Your task to perform on an android device: What's the weather? Image 0: 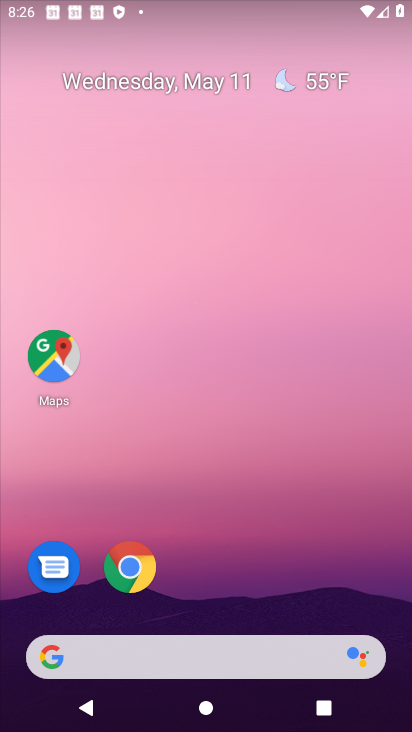
Step 0: drag from (323, 619) to (308, 53)
Your task to perform on an android device: What's the weather? Image 1: 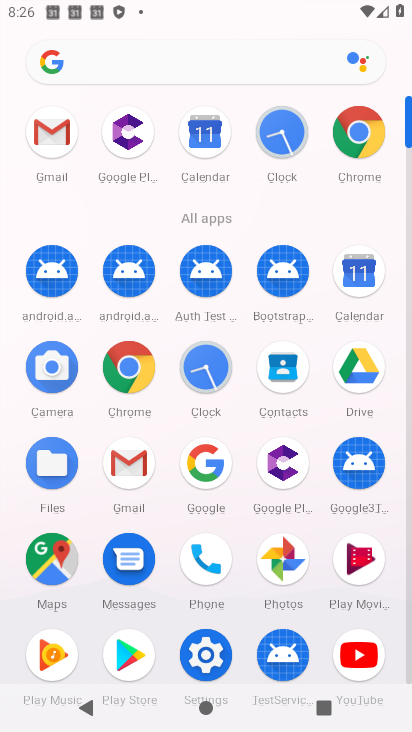
Step 1: click (122, 386)
Your task to perform on an android device: What's the weather? Image 2: 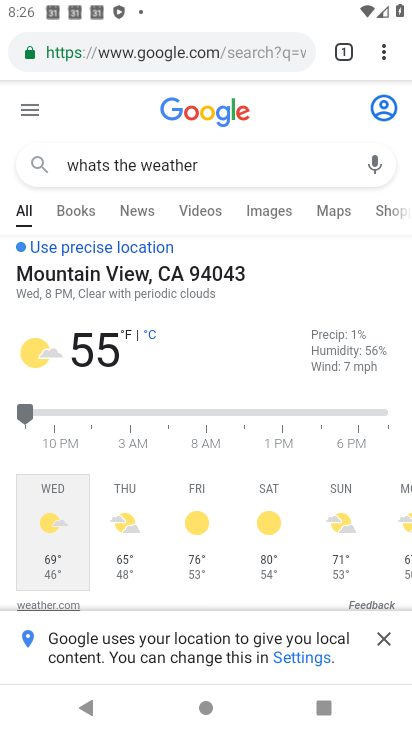
Step 2: task complete